Your task to perform on an android device: Open wifi settings Image 0: 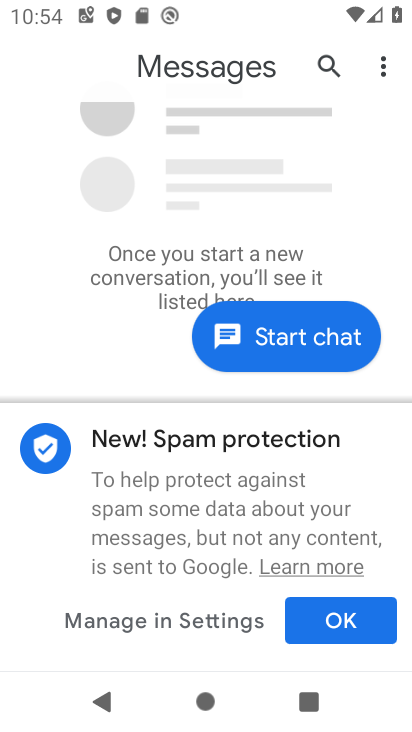
Step 0: press home button
Your task to perform on an android device: Open wifi settings Image 1: 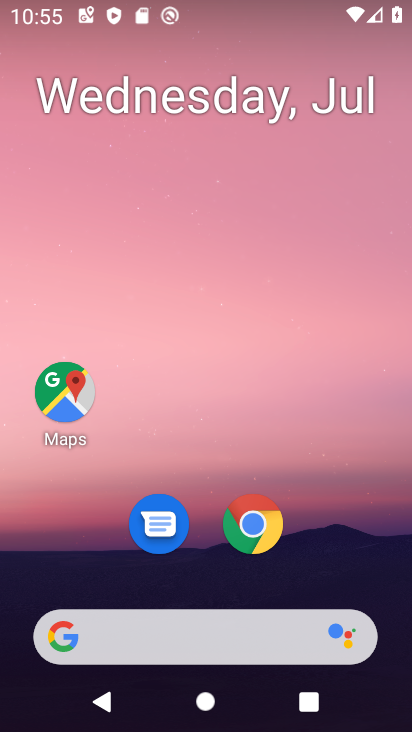
Step 1: drag from (216, 640) to (305, 76)
Your task to perform on an android device: Open wifi settings Image 2: 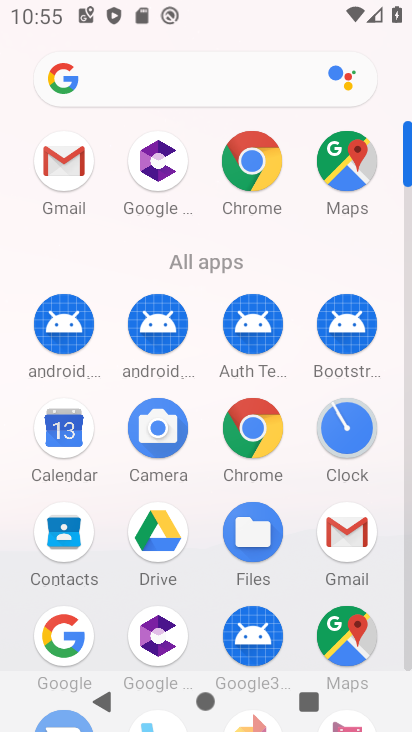
Step 2: drag from (200, 566) to (304, 123)
Your task to perform on an android device: Open wifi settings Image 3: 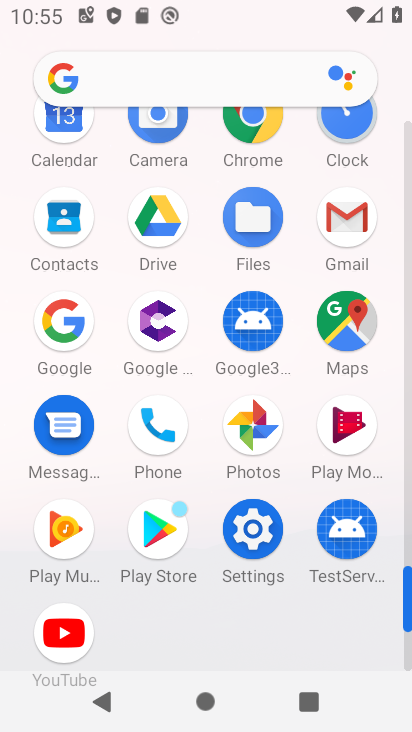
Step 3: click (245, 537)
Your task to perform on an android device: Open wifi settings Image 4: 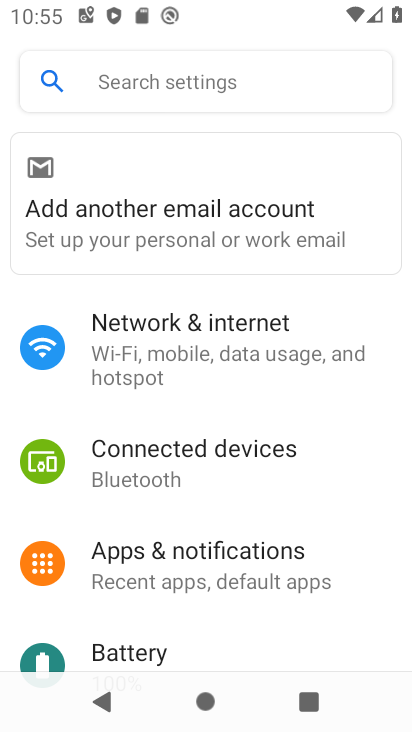
Step 4: click (255, 346)
Your task to perform on an android device: Open wifi settings Image 5: 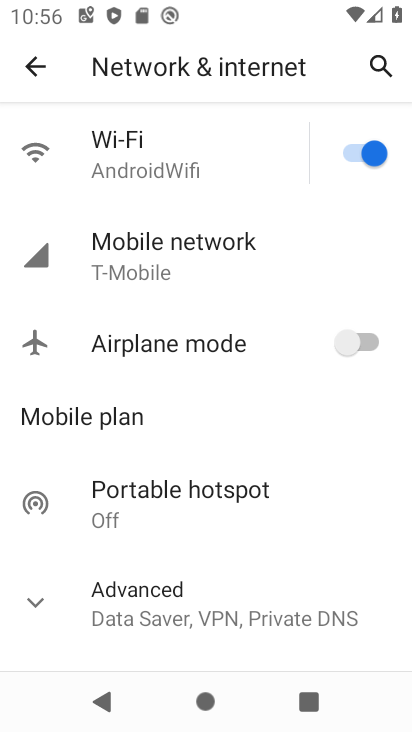
Step 5: click (129, 172)
Your task to perform on an android device: Open wifi settings Image 6: 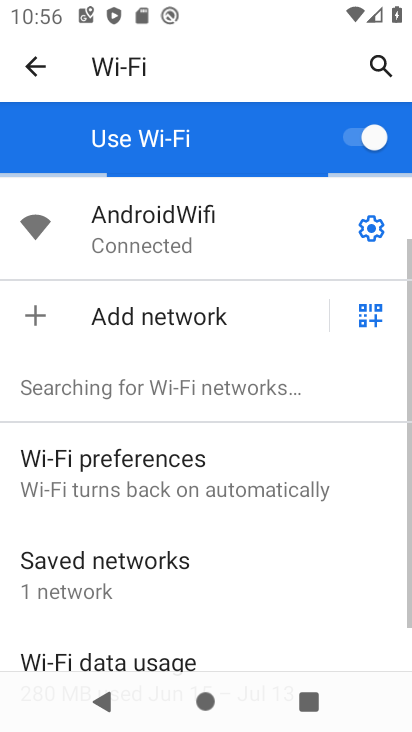
Step 6: task complete